Your task to perform on an android device: Go to Maps Image 0: 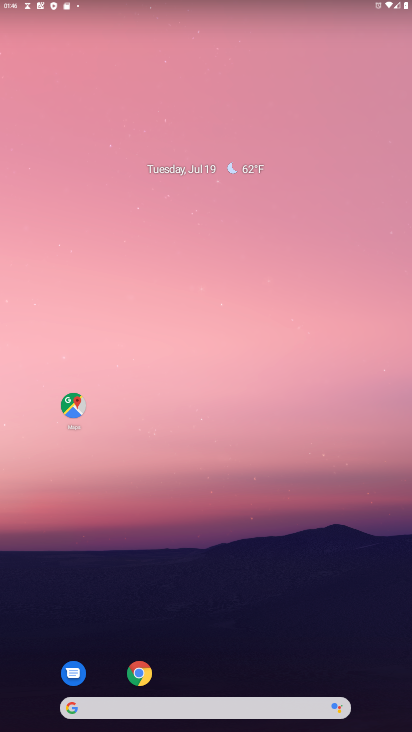
Step 0: click (67, 407)
Your task to perform on an android device: Go to Maps Image 1: 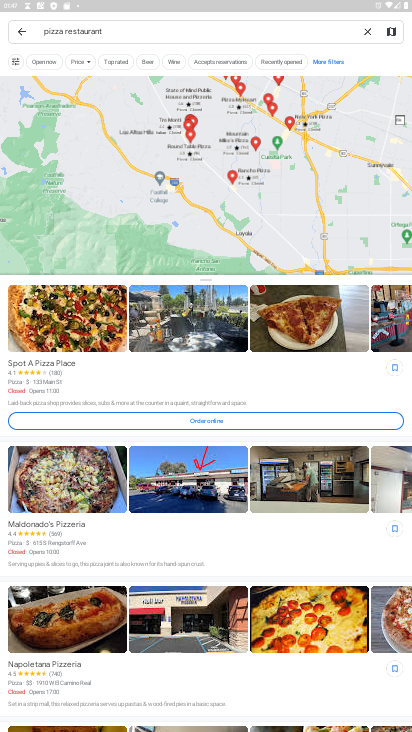
Step 1: task complete